Your task to perform on an android device: turn pop-ups off in chrome Image 0: 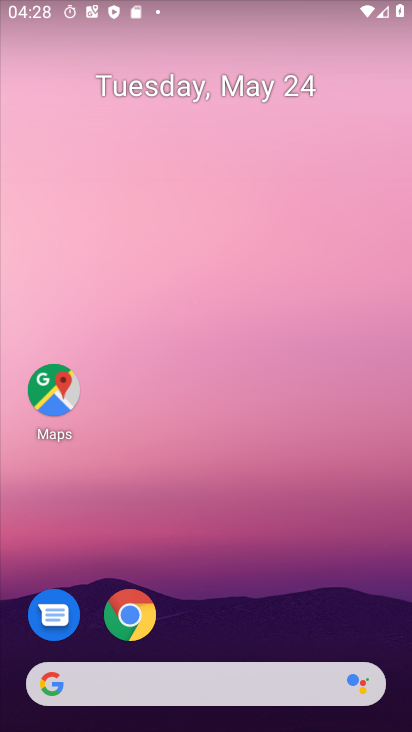
Step 0: click (126, 601)
Your task to perform on an android device: turn pop-ups off in chrome Image 1: 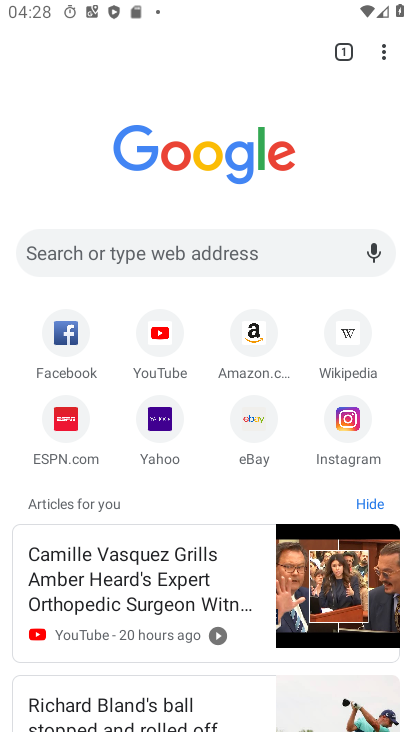
Step 1: drag from (382, 51) to (230, 430)
Your task to perform on an android device: turn pop-ups off in chrome Image 2: 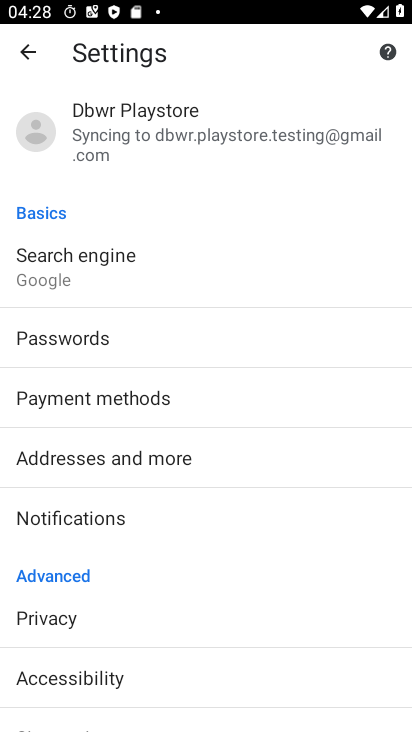
Step 2: drag from (150, 641) to (253, 275)
Your task to perform on an android device: turn pop-ups off in chrome Image 3: 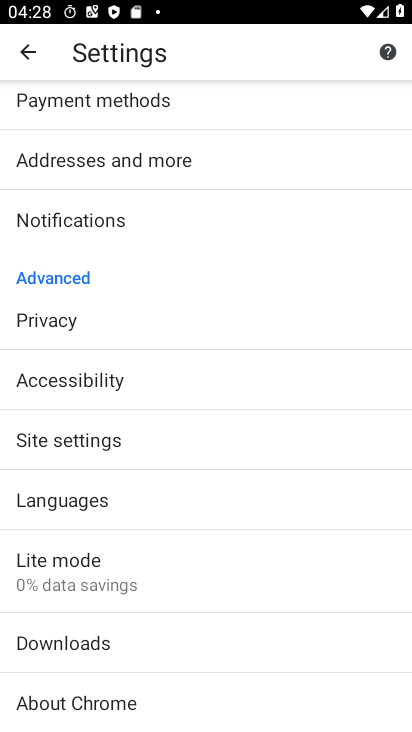
Step 3: click (102, 440)
Your task to perform on an android device: turn pop-ups off in chrome Image 4: 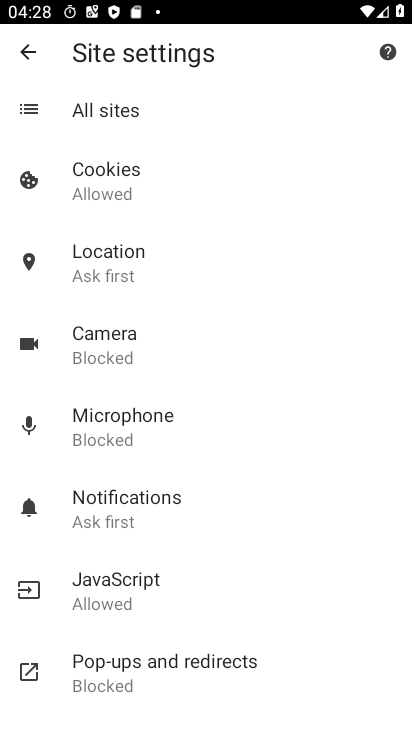
Step 4: click (109, 661)
Your task to perform on an android device: turn pop-ups off in chrome Image 5: 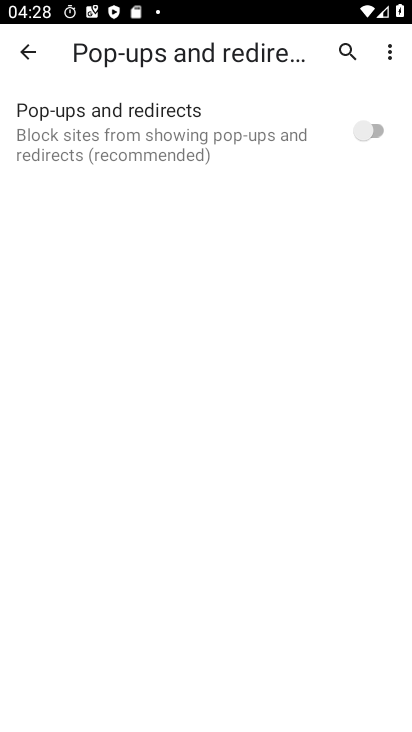
Step 5: task complete